Your task to perform on an android device: Go to Maps Image 0: 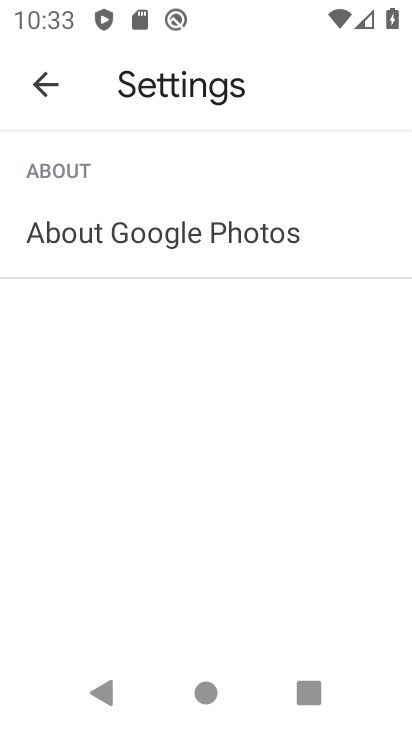
Step 0: press home button
Your task to perform on an android device: Go to Maps Image 1: 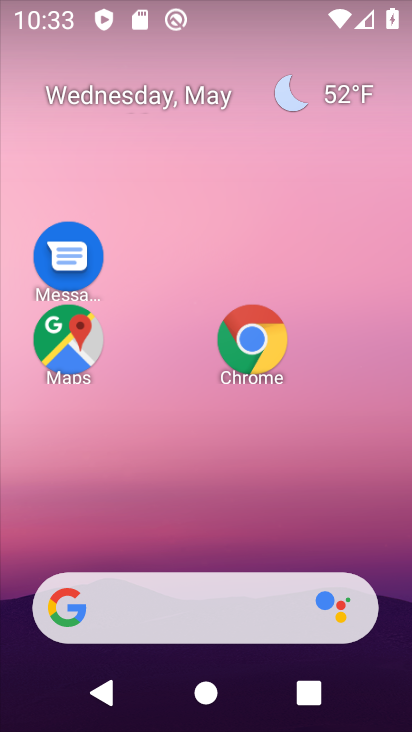
Step 1: click (73, 344)
Your task to perform on an android device: Go to Maps Image 2: 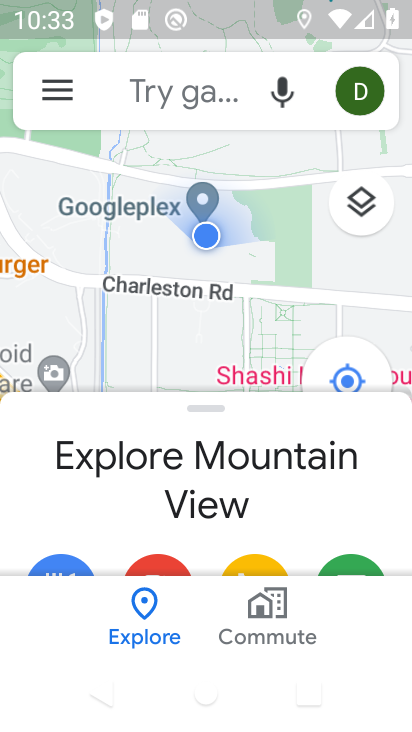
Step 2: task complete